Your task to perform on an android device: empty trash in google photos Image 0: 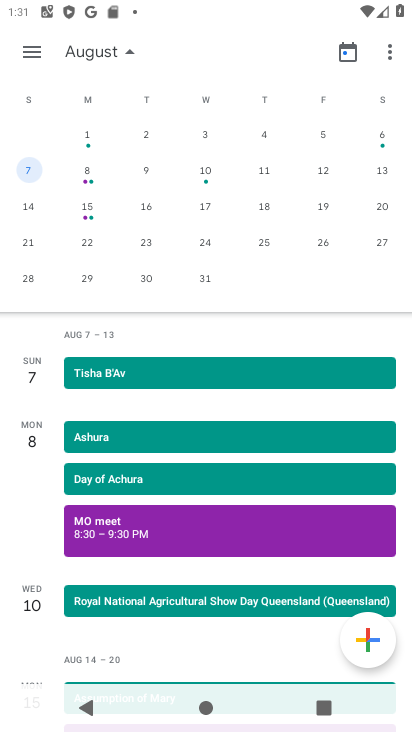
Step 0: press home button
Your task to perform on an android device: empty trash in google photos Image 1: 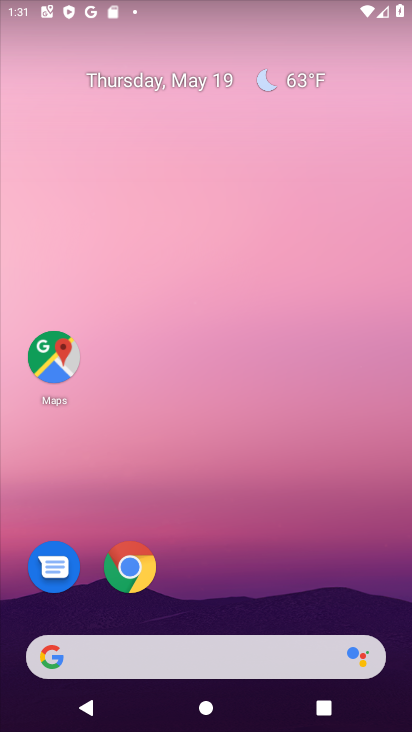
Step 1: drag from (294, 546) to (248, 104)
Your task to perform on an android device: empty trash in google photos Image 2: 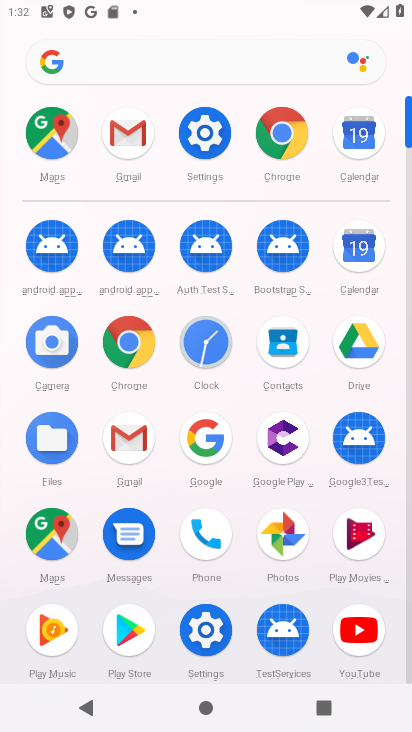
Step 2: click (301, 531)
Your task to perform on an android device: empty trash in google photos Image 3: 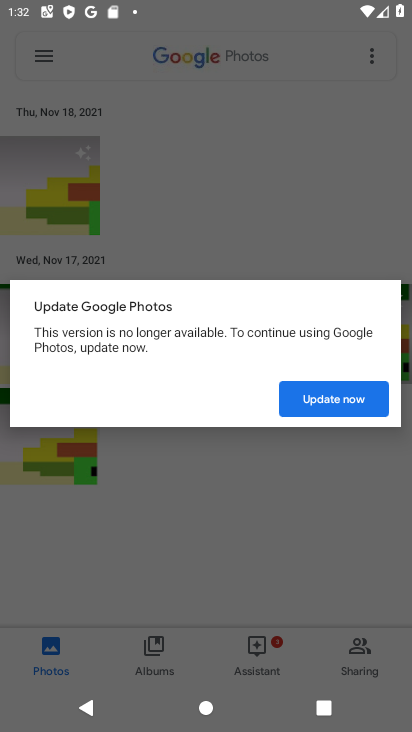
Step 3: click (332, 398)
Your task to perform on an android device: empty trash in google photos Image 4: 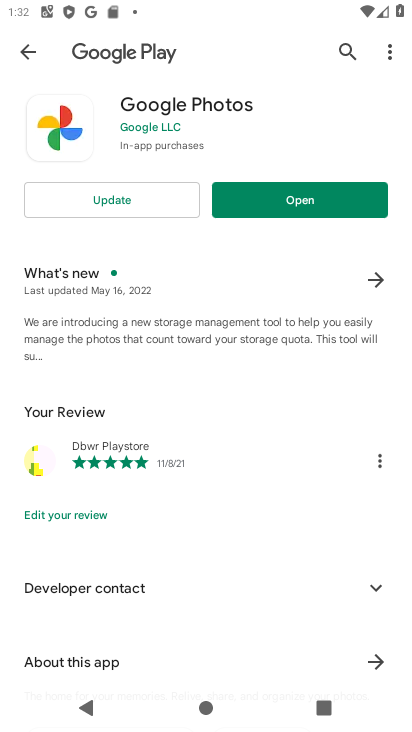
Step 4: click (132, 203)
Your task to perform on an android device: empty trash in google photos Image 5: 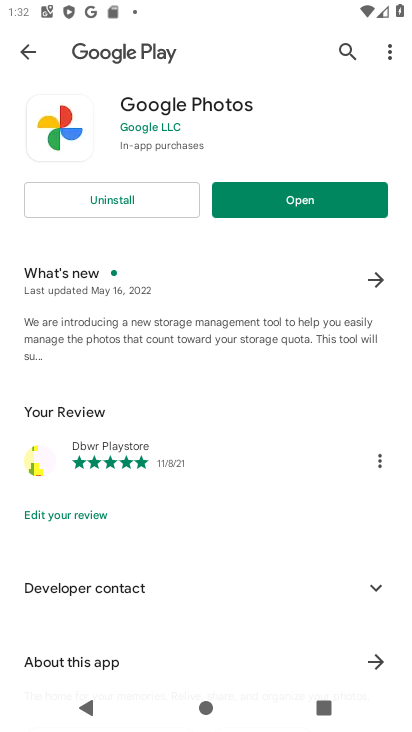
Step 5: click (278, 207)
Your task to perform on an android device: empty trash in google photos Image 6: 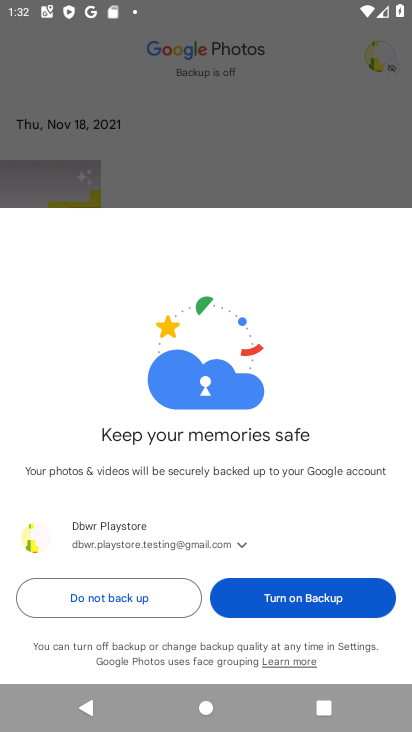
Step 6: click (273, 610)
Your task to perform on an android device: empty trash in google photos Image 7: 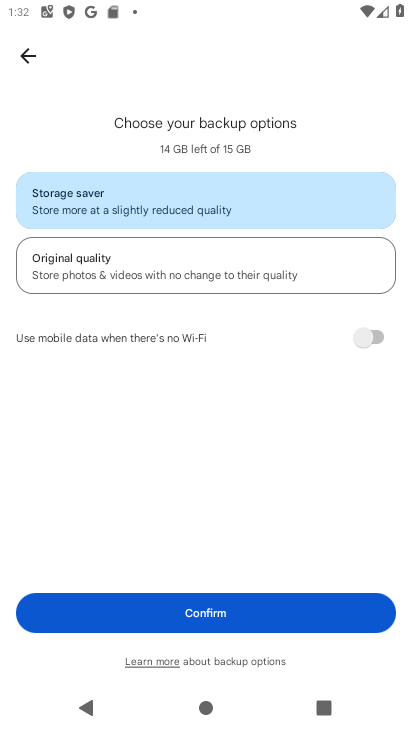
Step 7: click (273, 604)
Your task to perform on an android device: empty trash in google photos Image 8: 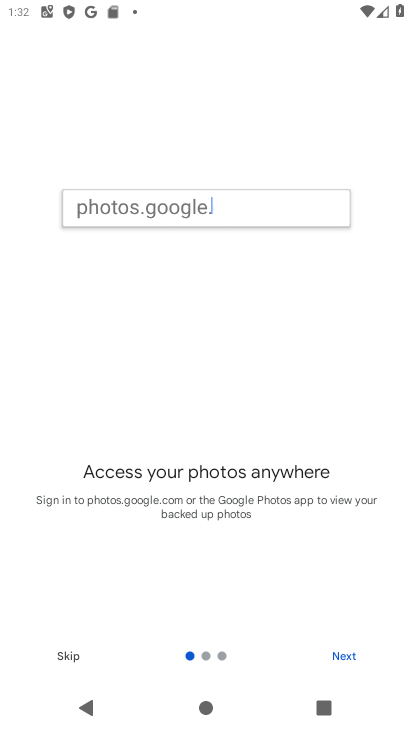
Step 8: click (338, 645)
Your task to perform on an android device: empty trash in google photos Image 9: 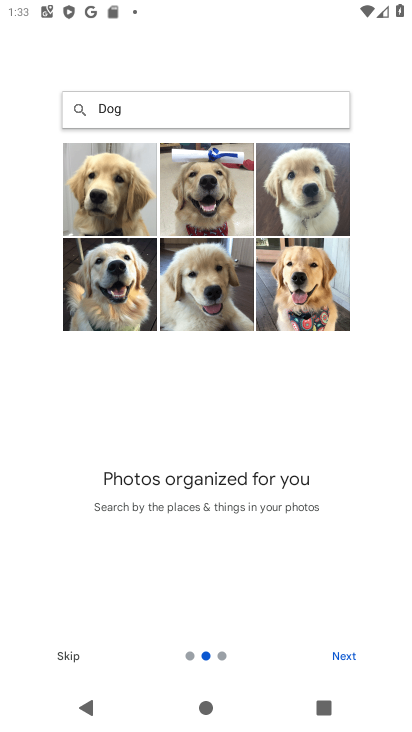
Step 9: click (338, 645)
Your task to perform on an android device: empty trash in google photos Image 10: 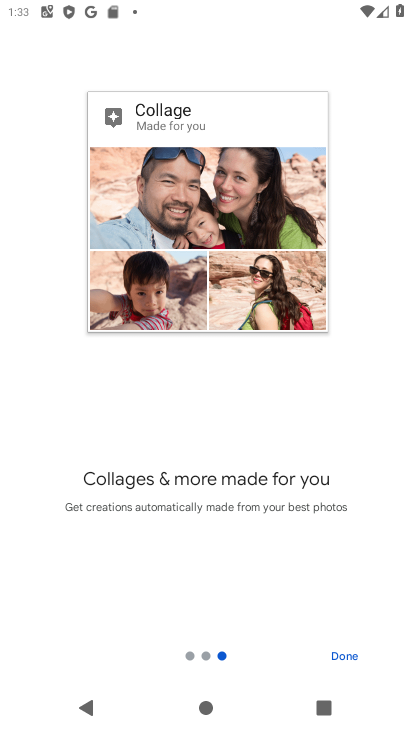
Step 10: click (338, 645)
Your task to perform on an android device: empty trash in google photos Image 11: 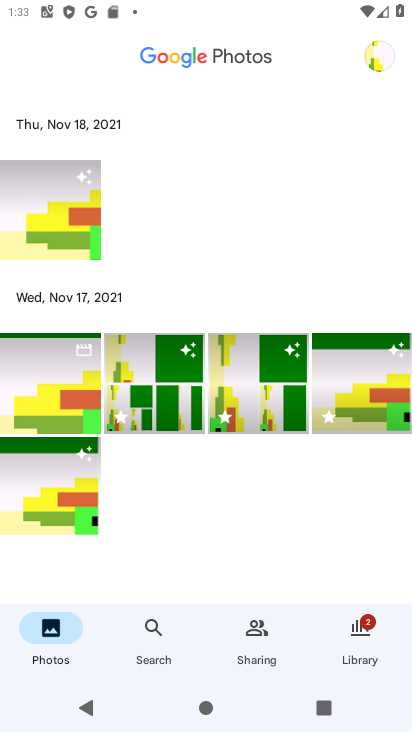
Step 11: task complete